Your task to perform on an android device: Do I have any events today? Image 0: 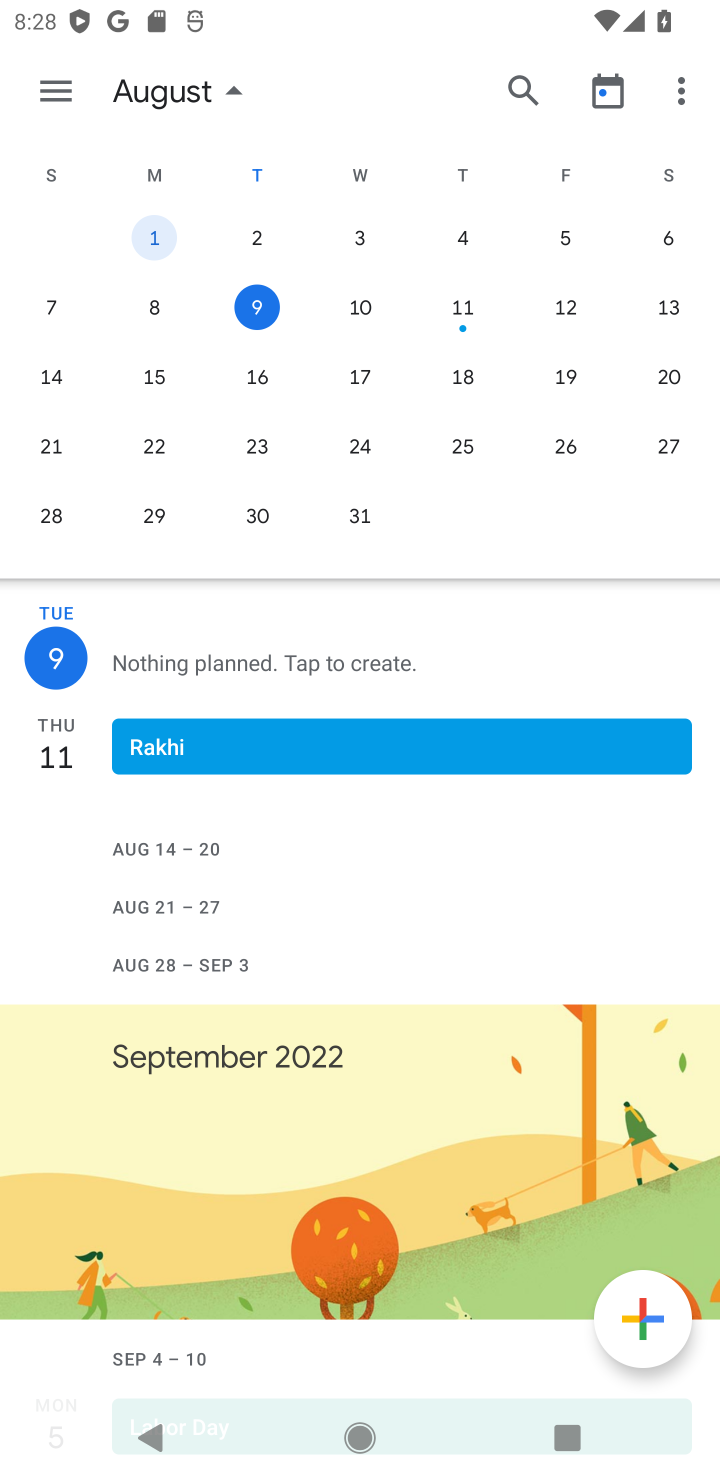
Step 0: click (50, 67)
Your task to perform on an android device: Do I have any events today? Image 1: 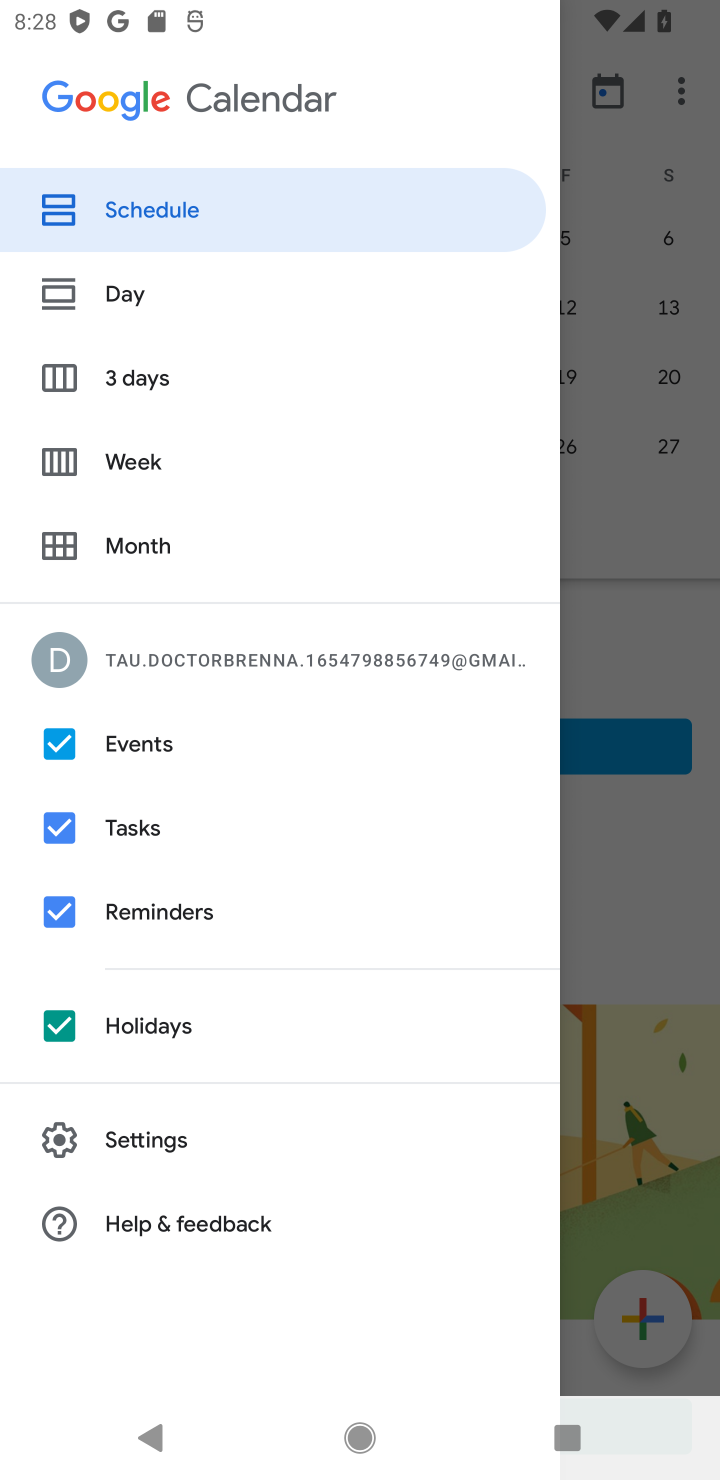
Step 1: click (116, 284)
Your task to perform on an android device: Do I have any events today? Image 2: 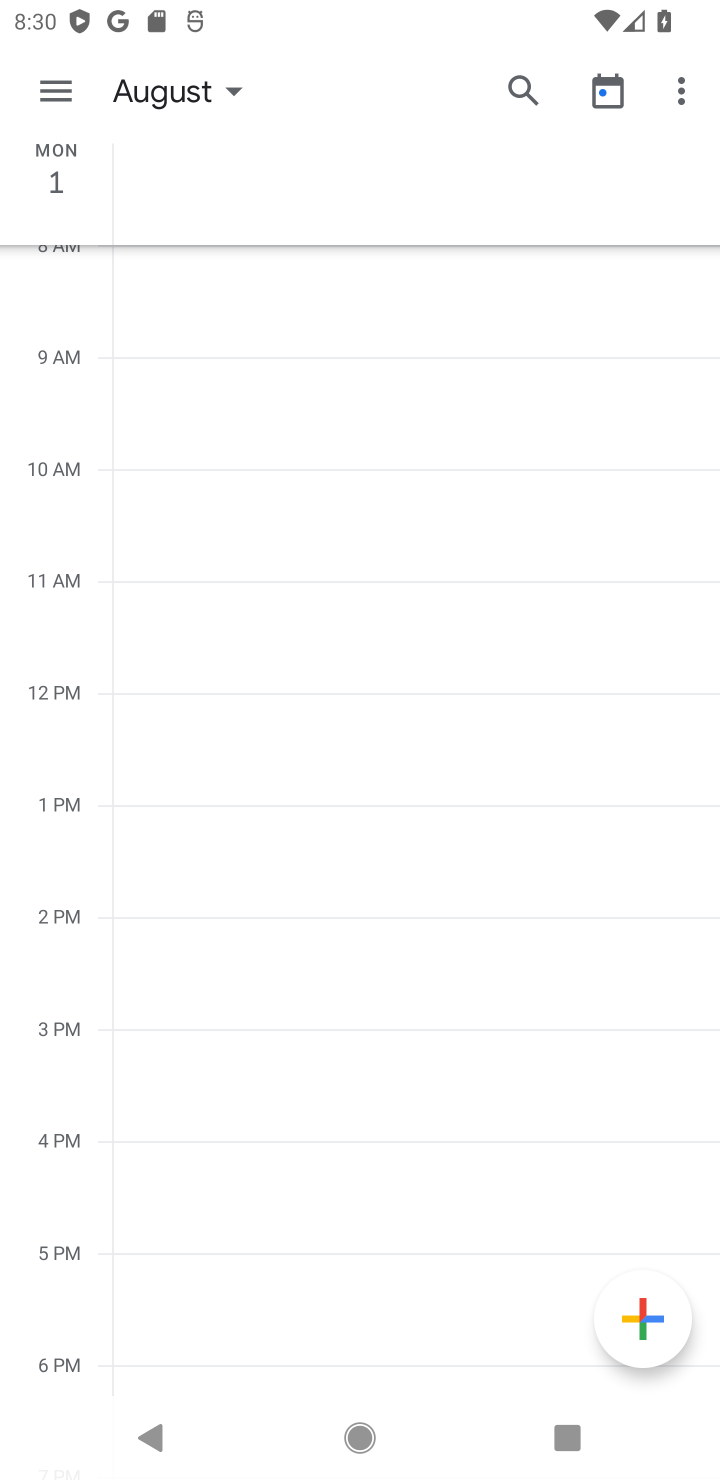
Step 2: task complete